Your task to perform on an android device: Search for the best rated tool bag on Lowe's. Image 0: 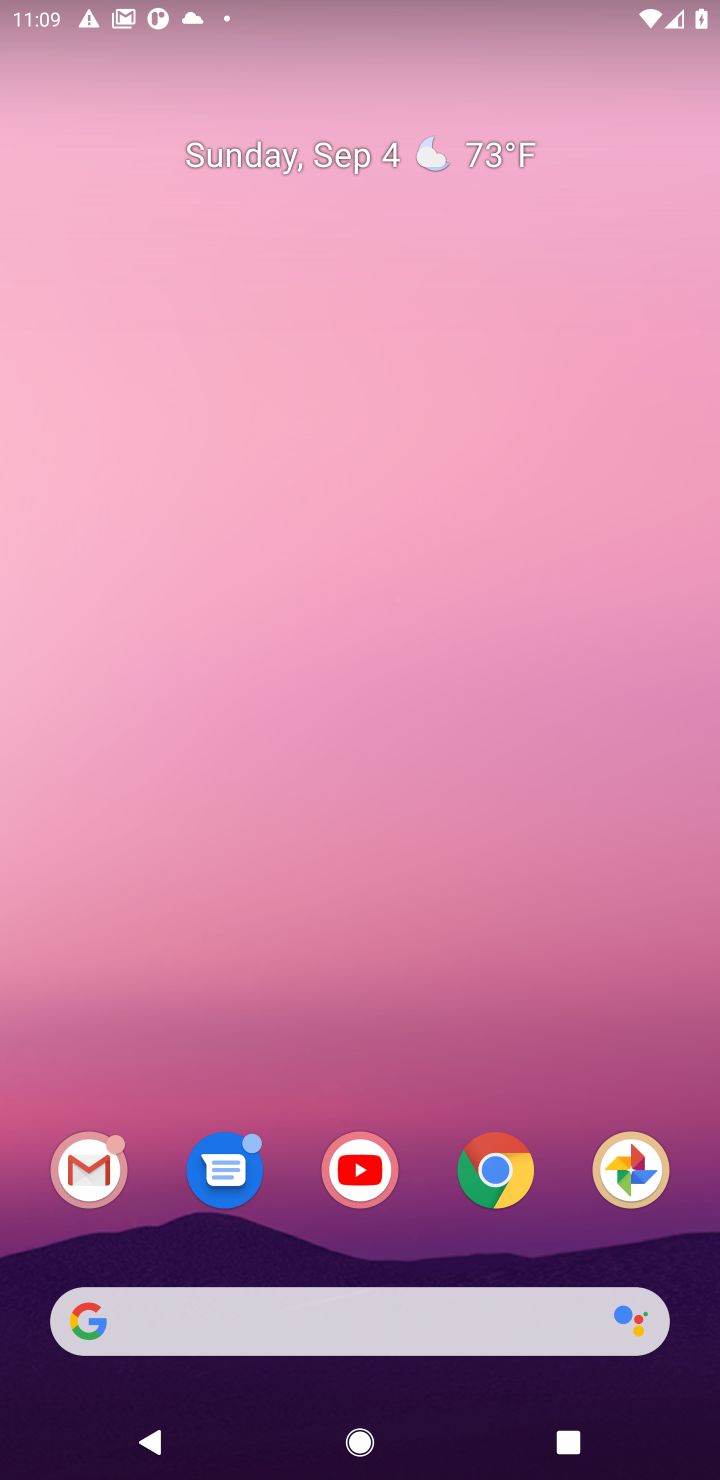
Step 0: drag from (400, 1028) to (539, 58)
Your task to perform on an android device: Search for the best rated tool bag on Lowe's. Image 1: 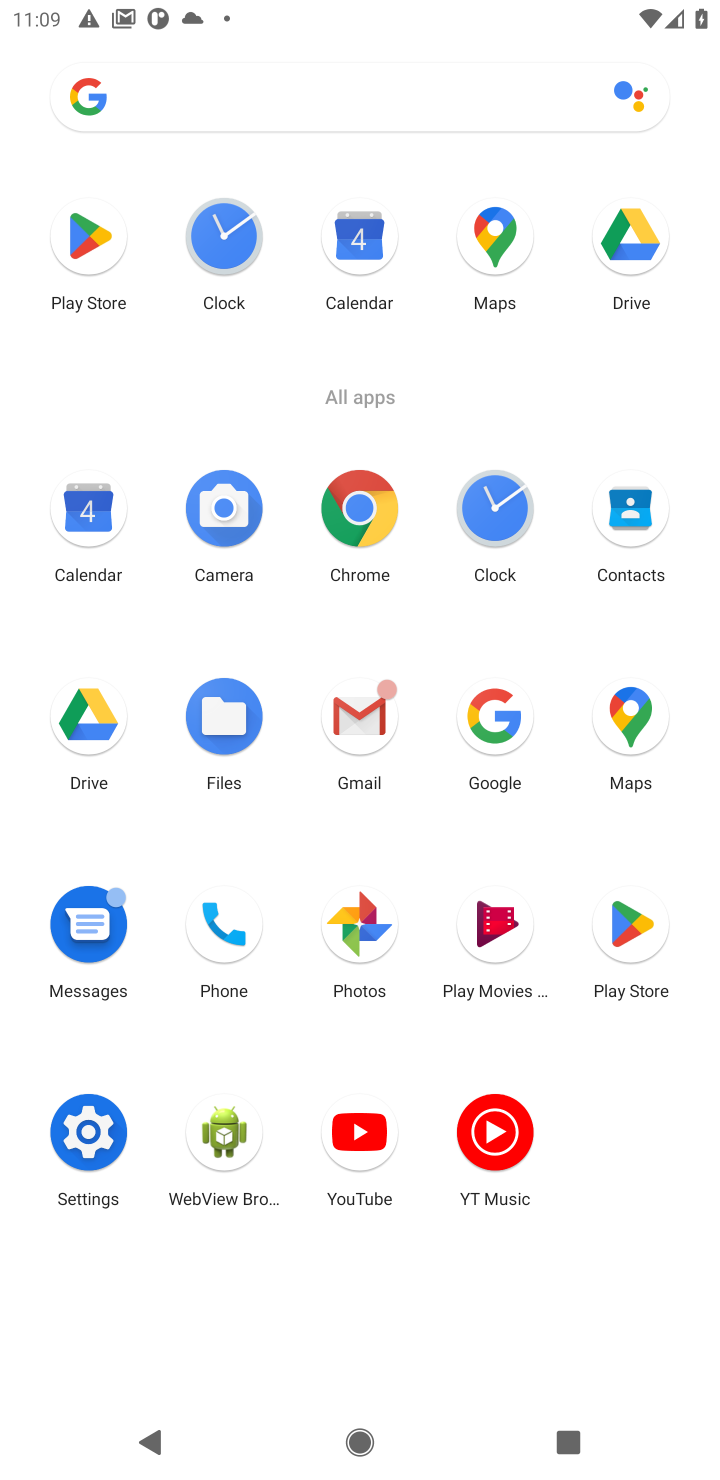
Step 1: click (340, 533)
Your task to perform on an android device: Search for the best rated tool bag on Lowe's. Image 2: 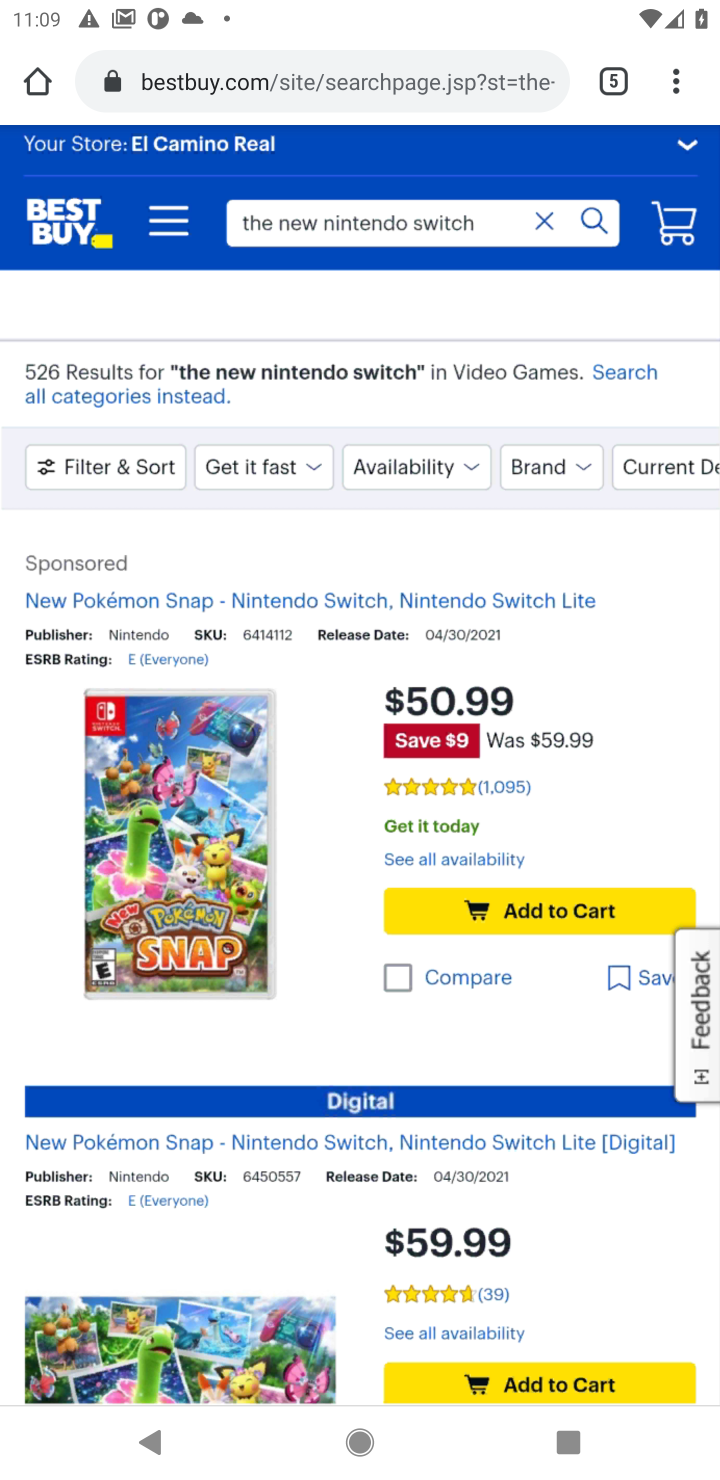
Step 2: click (598, 103)
Your task to perform on an android device: Search for the best rated tool bag on Lowe's. Image 3: 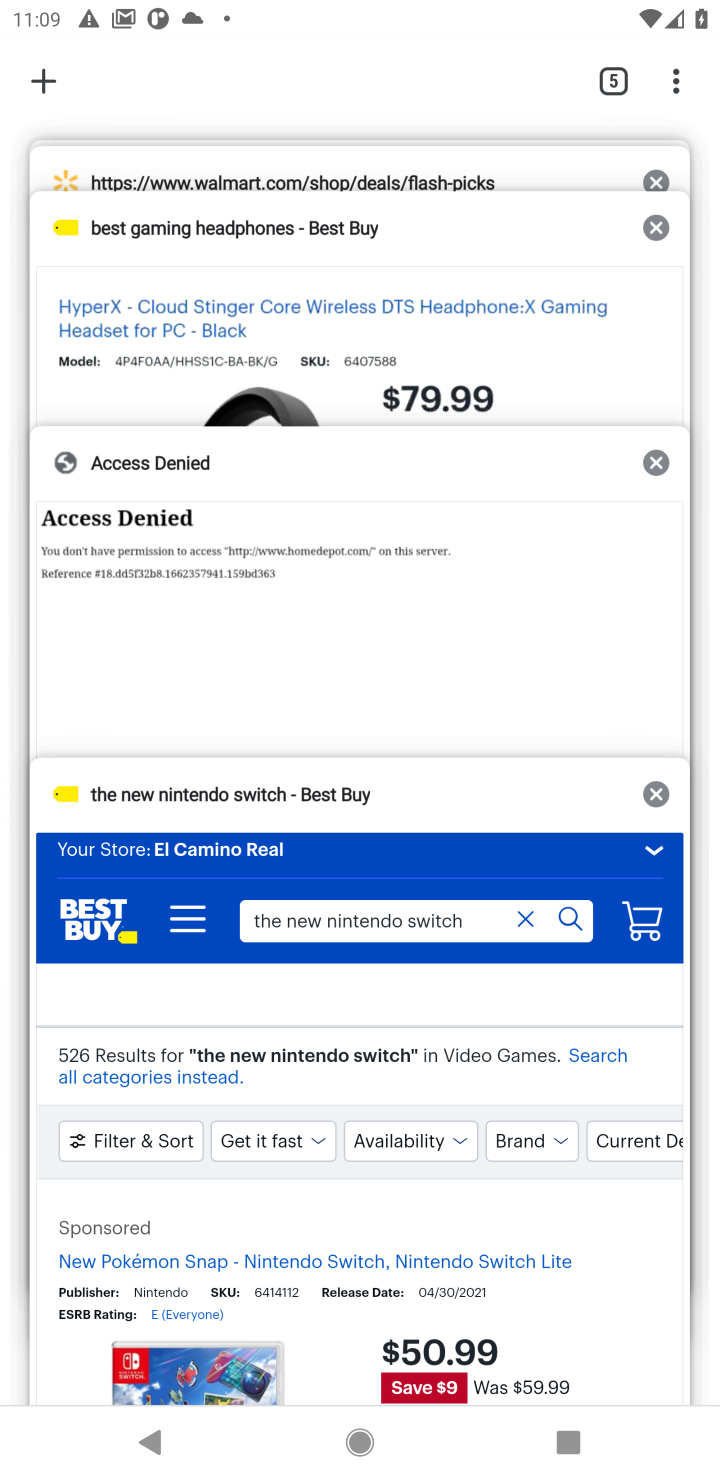
Step 3: click (24, 79)
Your task to perform on an android device: Search for the best rated tool bag on Lowe's. Image 4: 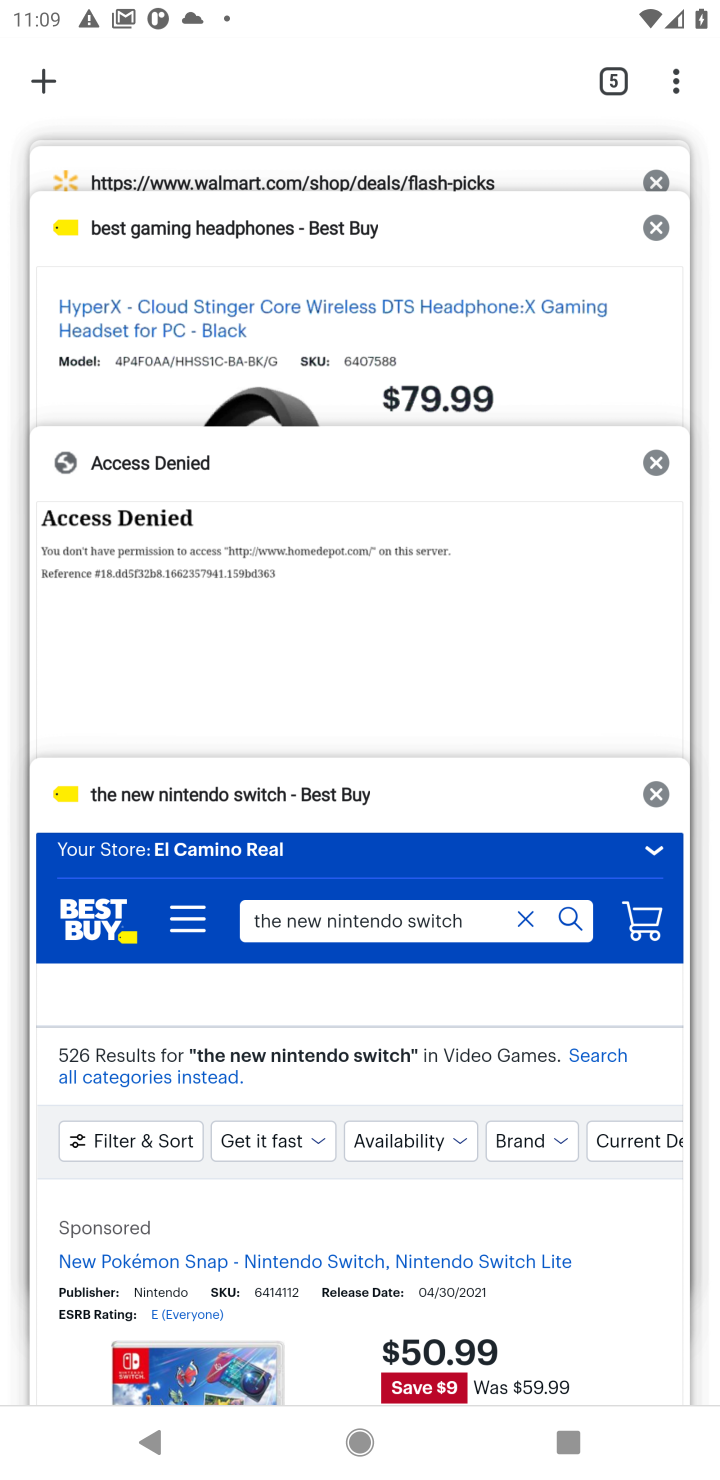
Step 4: click (31, 79)
Your task to perform on an android device: Search for the best rated tool bag on Lowe's. Image 5: 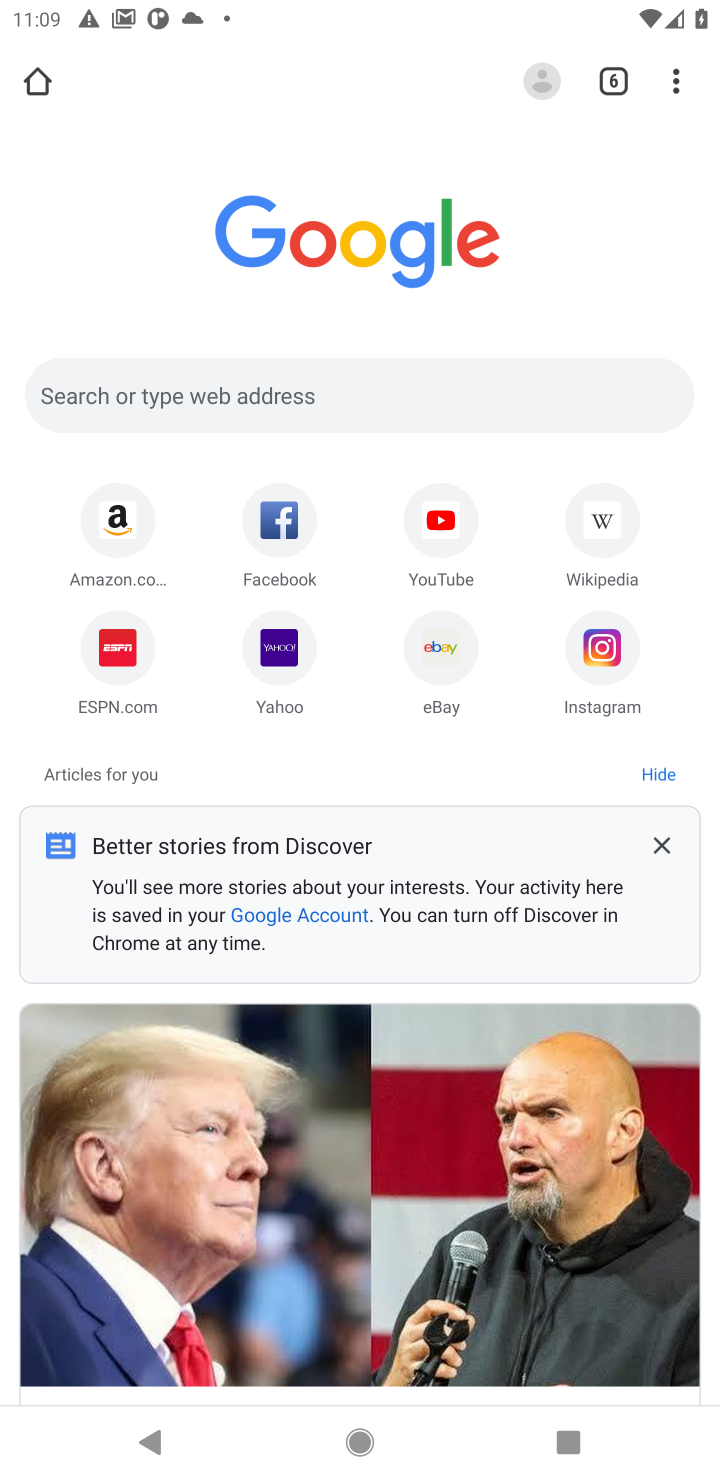
Step 5: click (219, 387)
Your task to perform on an android device: Search for the best rated tool bag on Lowe's. Image 6: 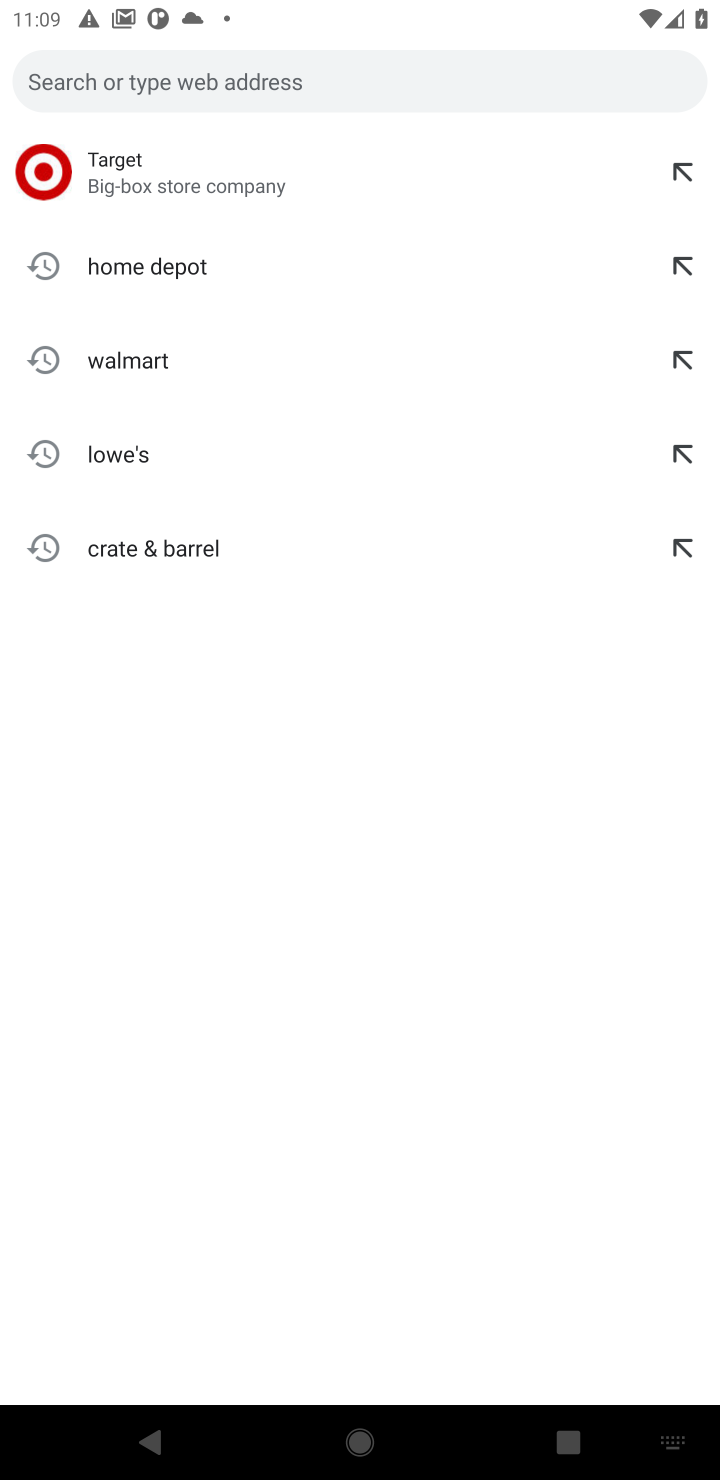
Step 6: type "Lowe's"
Your task to perform on an android device: Search for the best rated tool bag on Lowe's. Image 7: 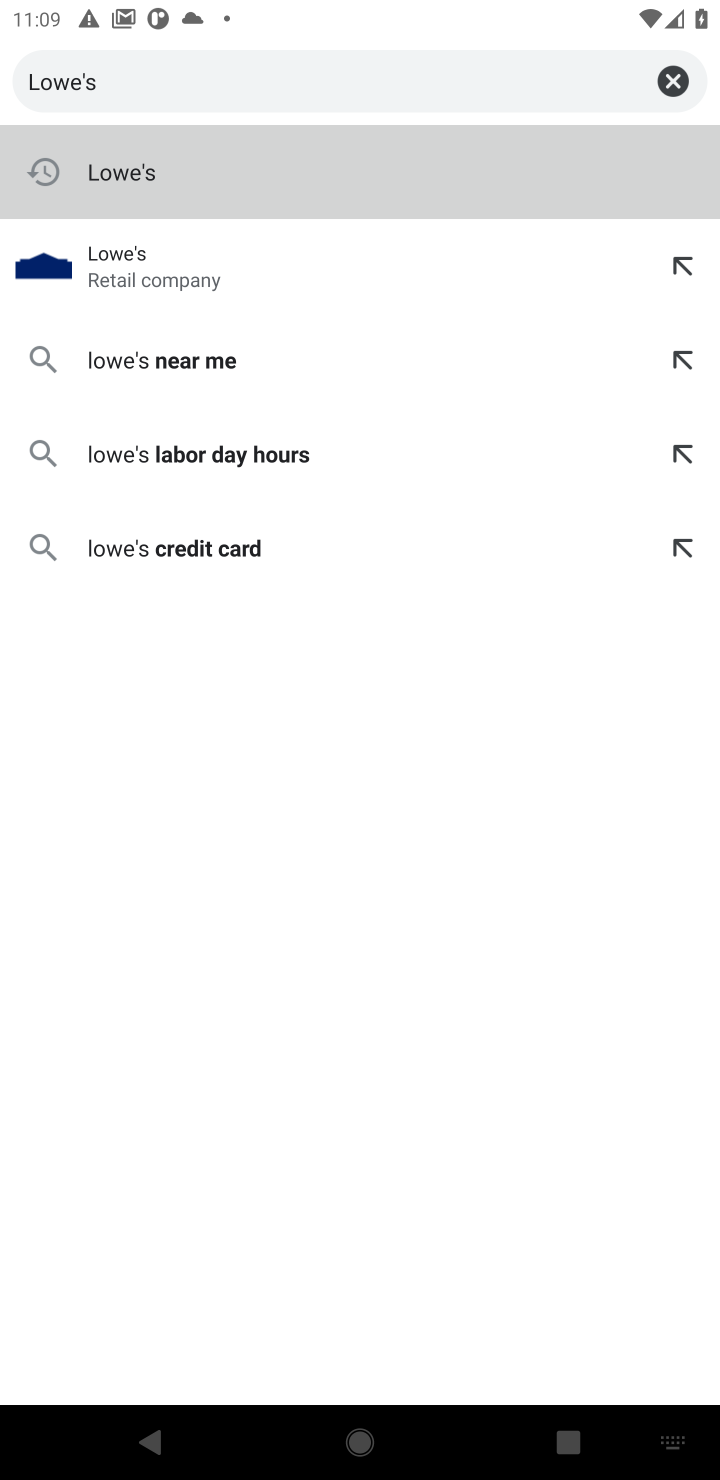
Step 7: type ""
Your task to perform on an android device: Search for the best rated tool bag on Lowe's. Image 8: 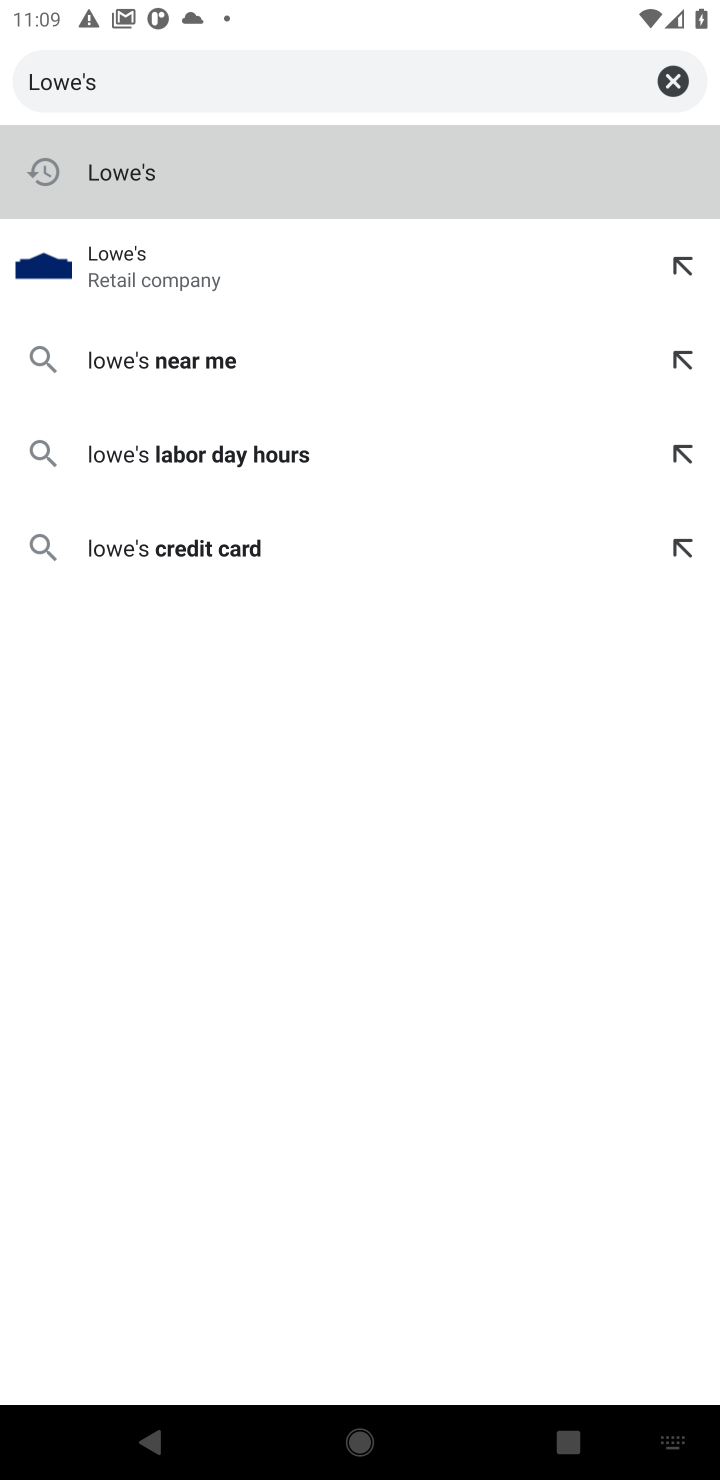
Step 8: click (128, 179)
Your task to perform on an android device: Search for the best rated tool bag on Lowe's. Image 9: 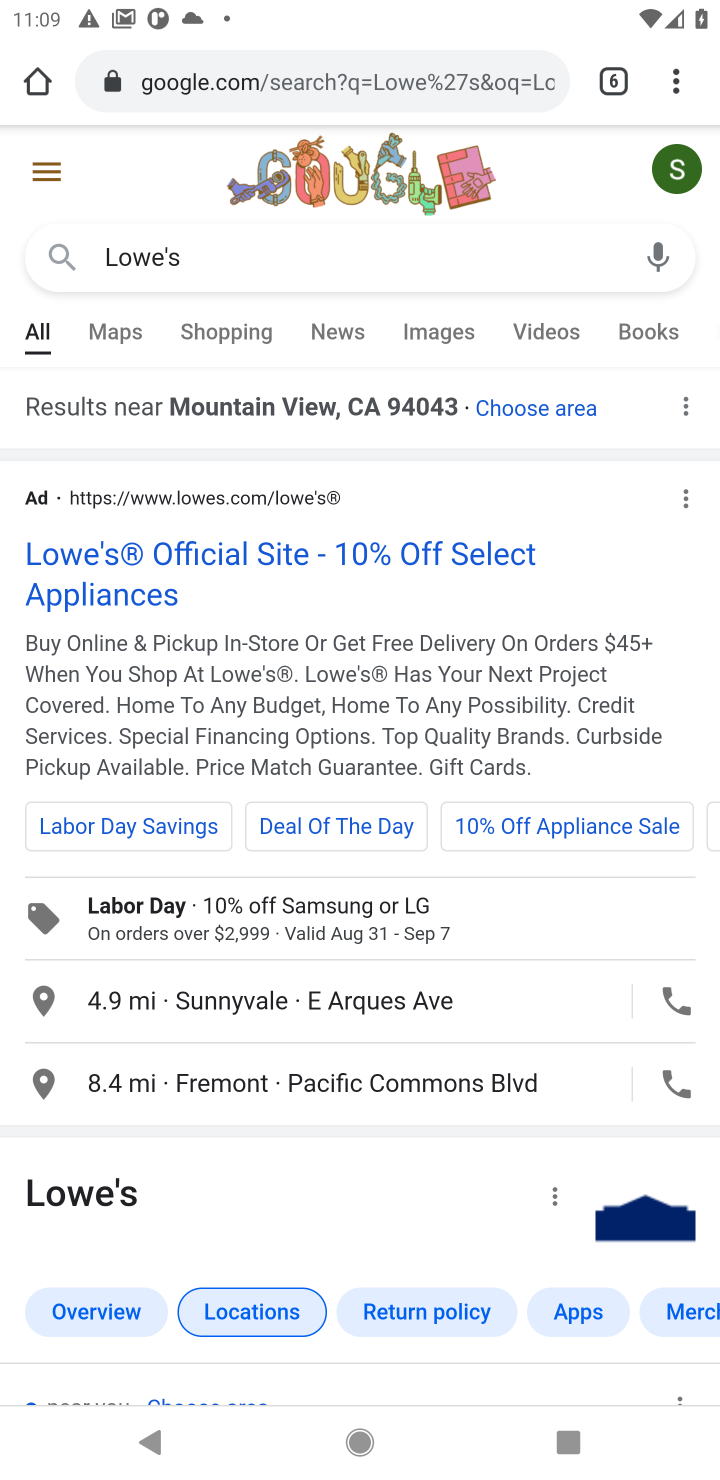
Step 9: click (205, 545)
Your task to perform on an android device: Search for the best rated tool bag on Lowe's. Image 10: 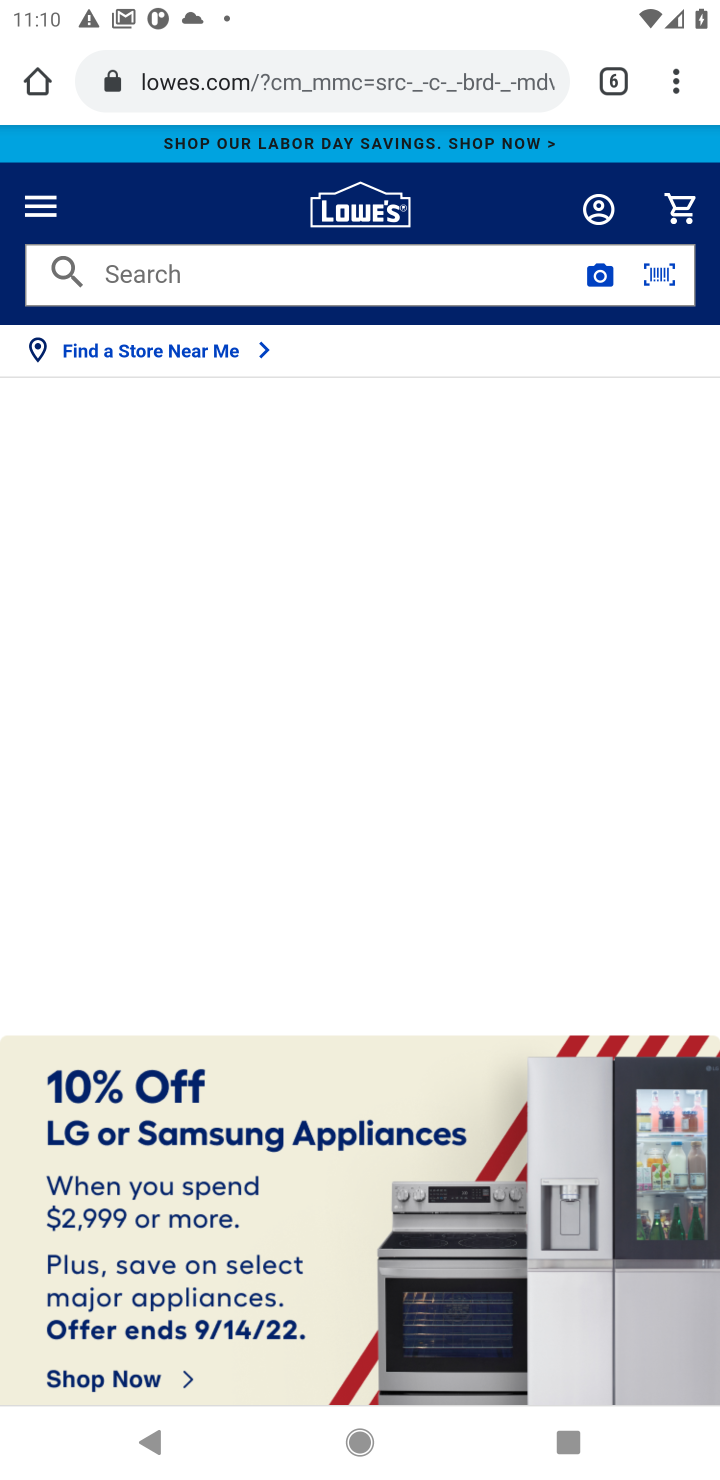
Step 10: click (228, 272)
Your task to perform on an android device: Search for the best rated tool bag on Lowe's. Image 11: 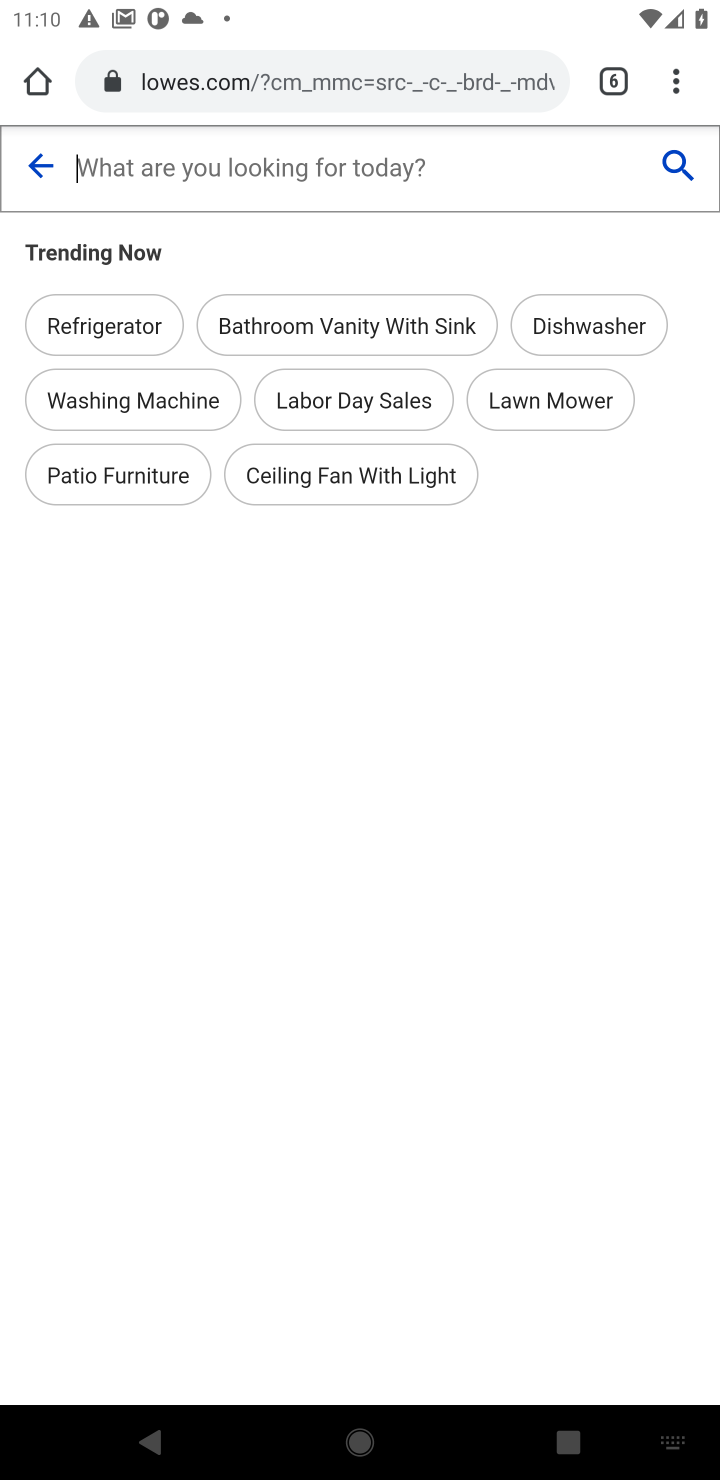
Step 11: type "the best rated tool bag "
Your task to perform on an android device: Search for the best rated tool bag on Lowe's. Image 12: 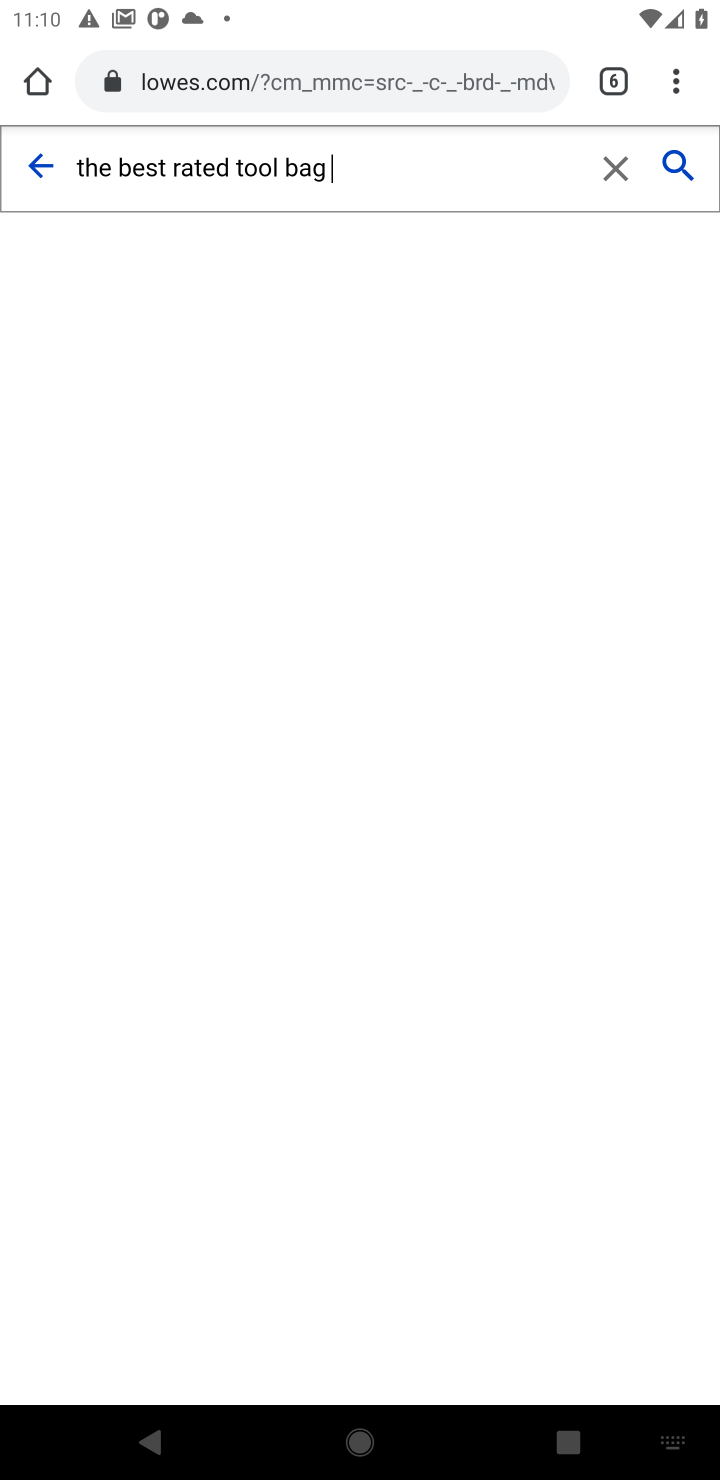
Step 12: type ""
Your task to perform on an android device: Search for the best rated tool bag on Lowe's. Image 13: 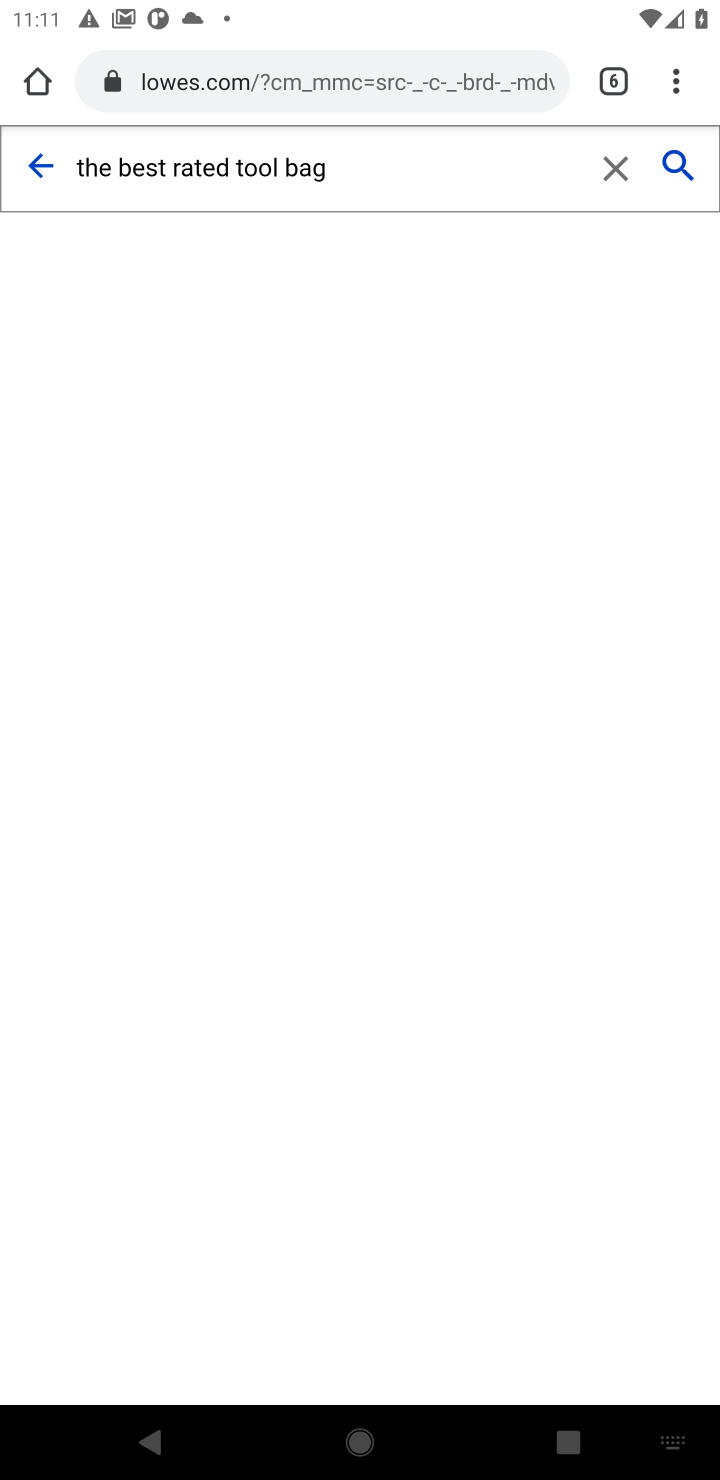
Step 13: click (691, 178)
Your task to perform on an android device: Search for the best rated tool bag on Lowe's. Image 14: 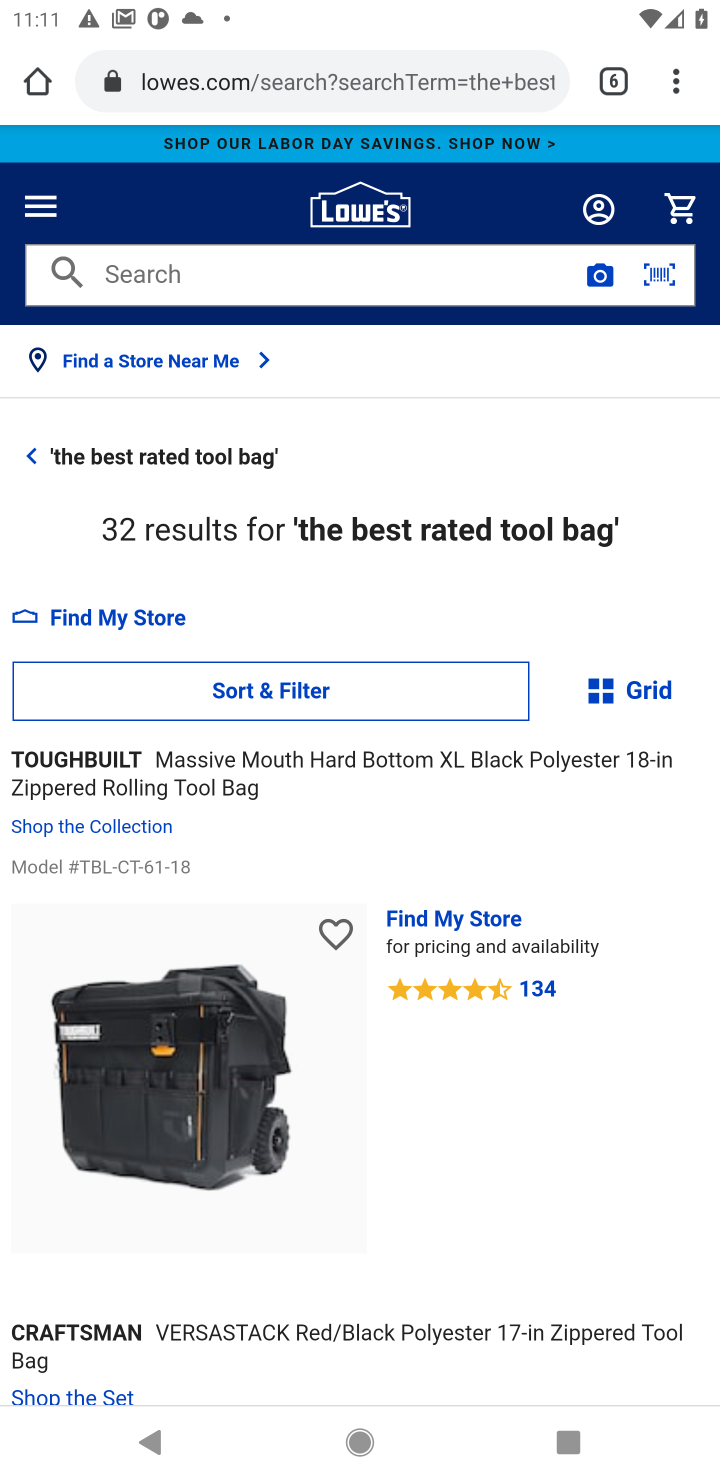
Step 14: task complete